Your task to perform on an android device: Search for pizza restaurants on Maps Image 0: 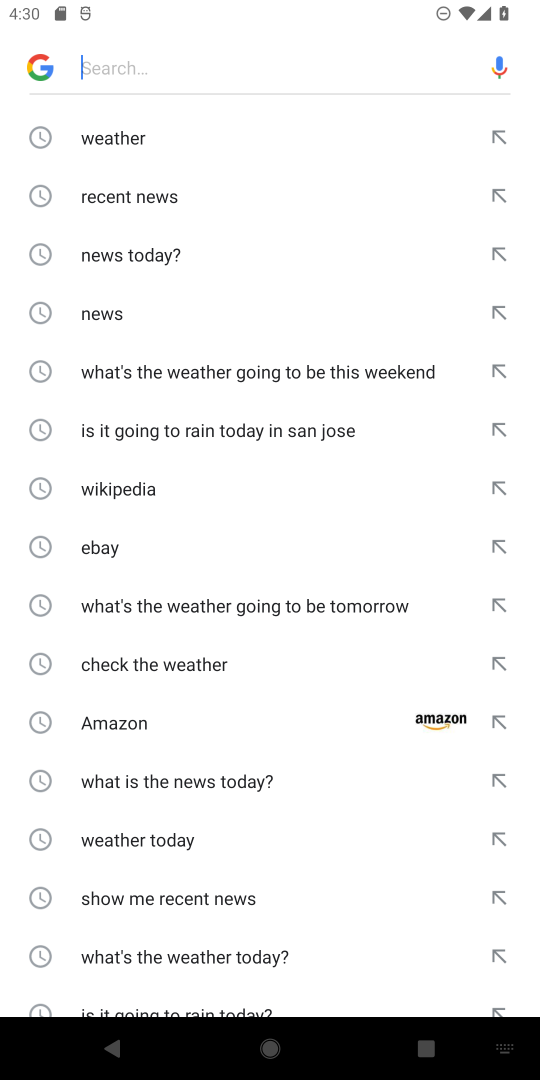
Step 0: press home button
Your task to perform on an android device: Search for pizza restaurants on Maps Image 1: 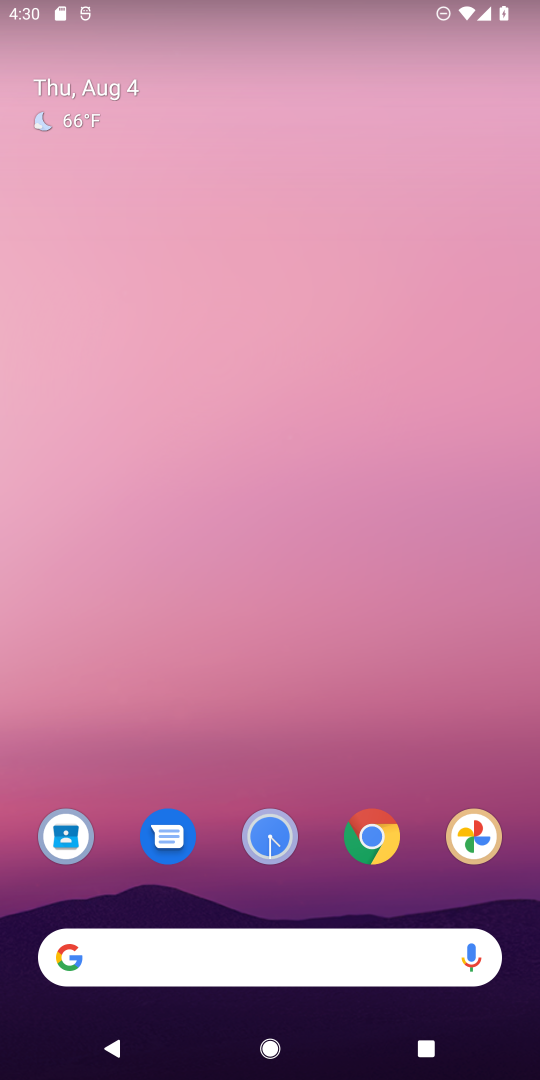
Step 1: drag from (340, 903) to (374, 19)
Your task to perform on an android device: Search for pizza restaurants on Maps Image 2: 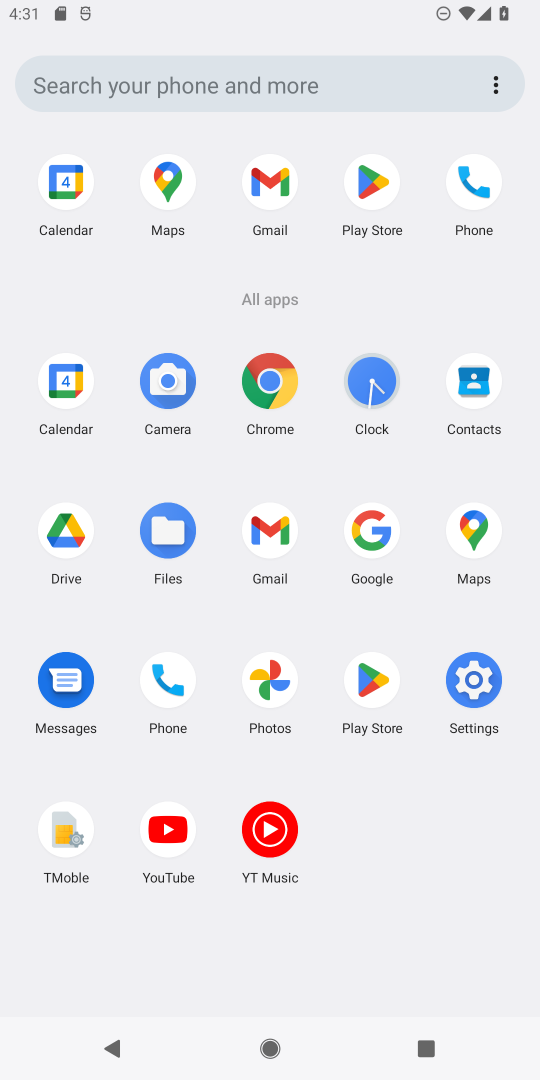
Step 2: click (165, 180)
Your task to perform on an android device: Search for pizza restaurants on Maps Image 3: 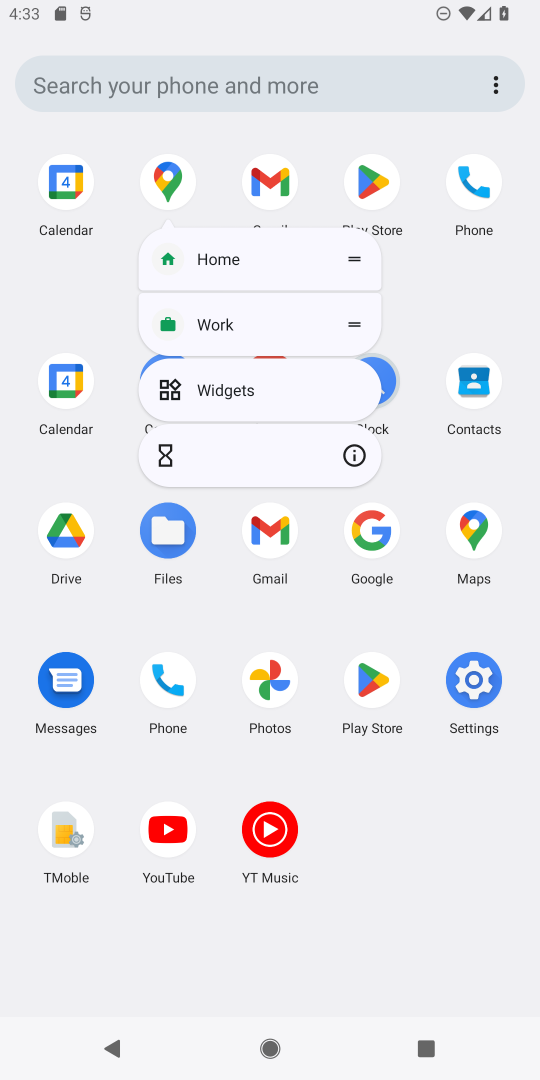
Step 3: click (177, 172)
Your task to perform on an android device: Search for pizza restaurants on Maps Image 4: 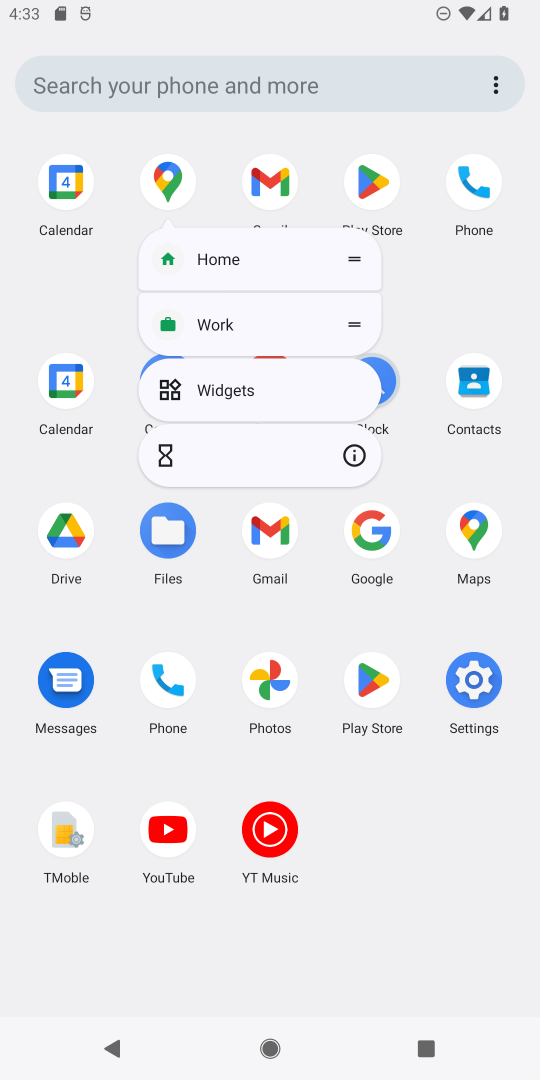
Step 4: click (177, 172)
Your task to perform on an android device: Search for pizza restaurants on Maps Image 5: 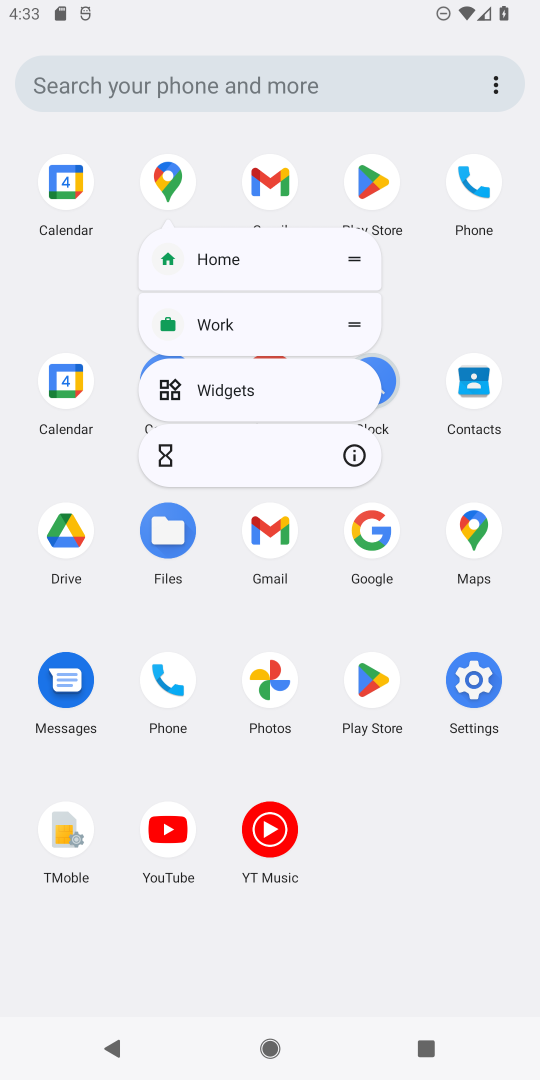
Step 5: click (177, 172)
Your task to perform on an android device: Search for pizza restaurants on Maps Image 6: 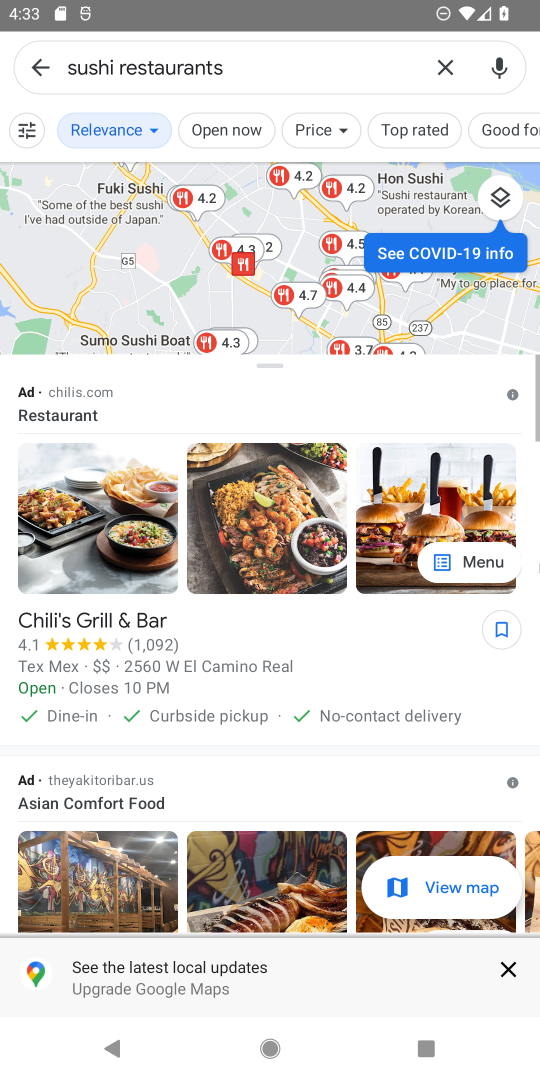
Step 6: click (449, 66)
Your task to perform on an android device: Search for pizza restaurants on Maps Image 7: 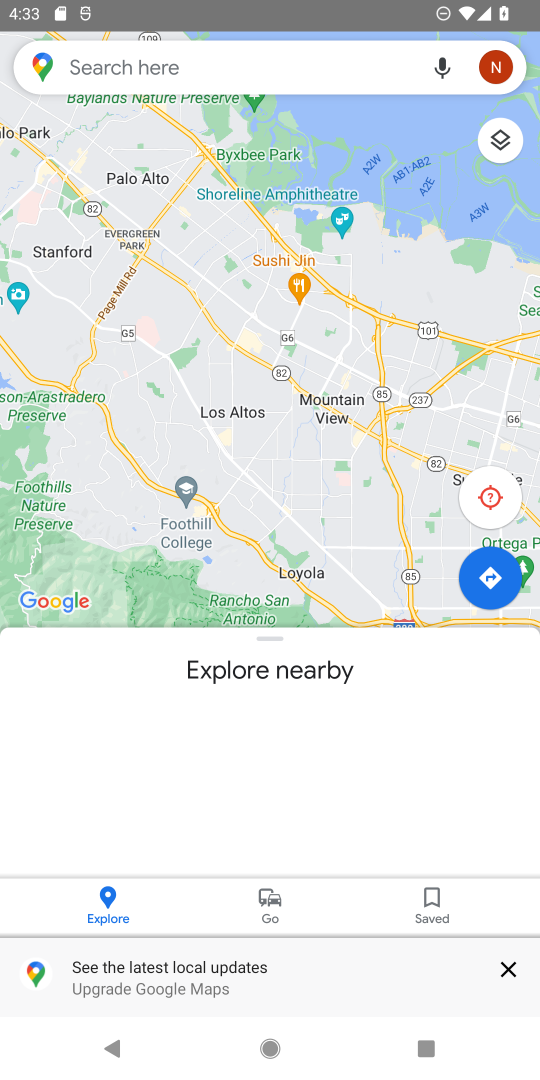
Step 7: click (271, 77)
Your task to perform on an android device: Search for pizza restaurants on Maps Image 8: 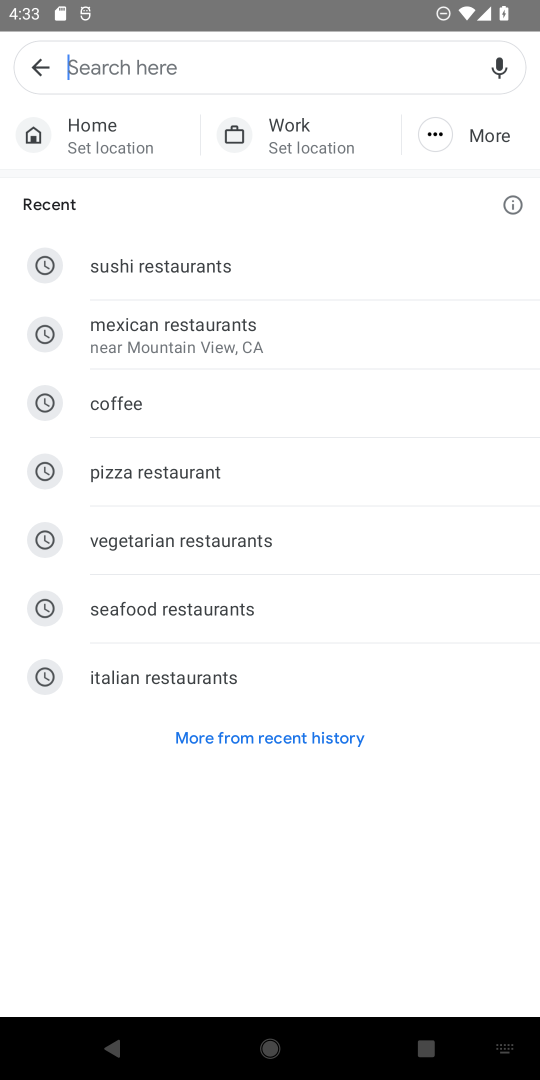
Step 8: click (227, 462)
Your task to perform on an android device: Search for pizza restaurants on Maps Image 9: 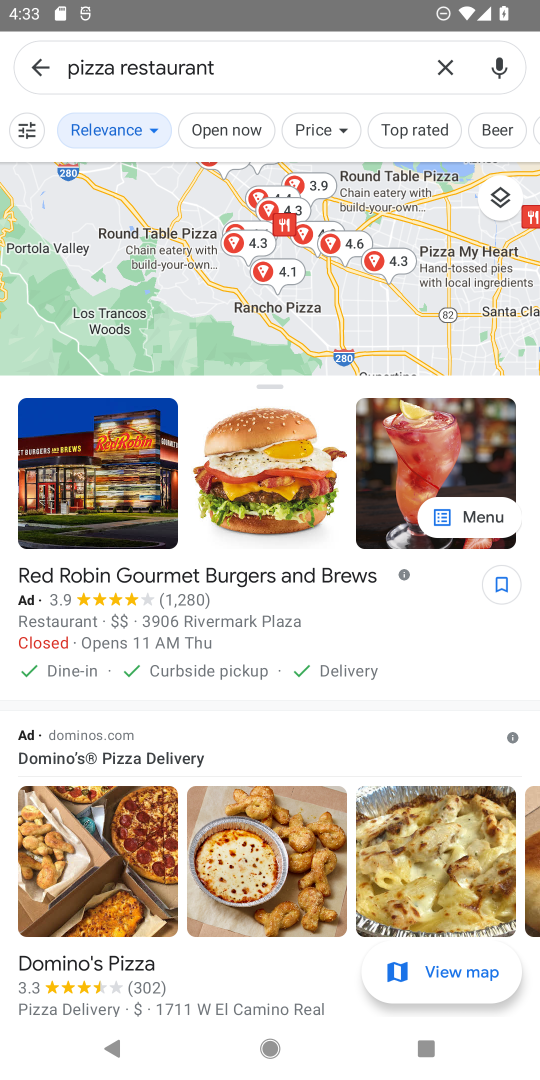
Step 9: task complete